Your task to perform on an android device: Add bose soundsport free to the cart on costco.com, then select checkout. Image 0: 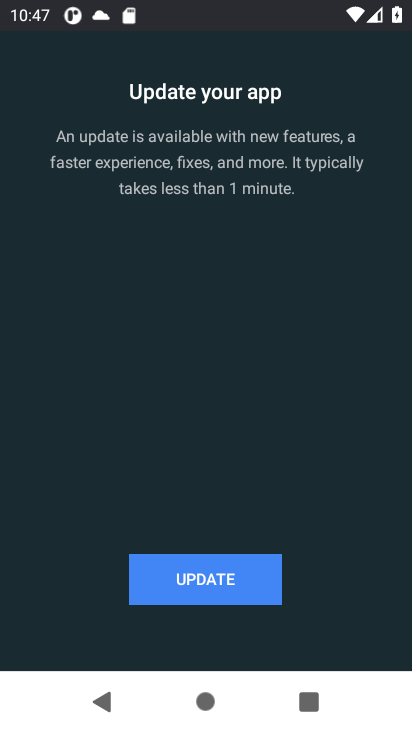
Step 0: press home button
Your task to perform on an android device: Add bose soundsport free to the cart on costco.com, then select checkout. Image 1: 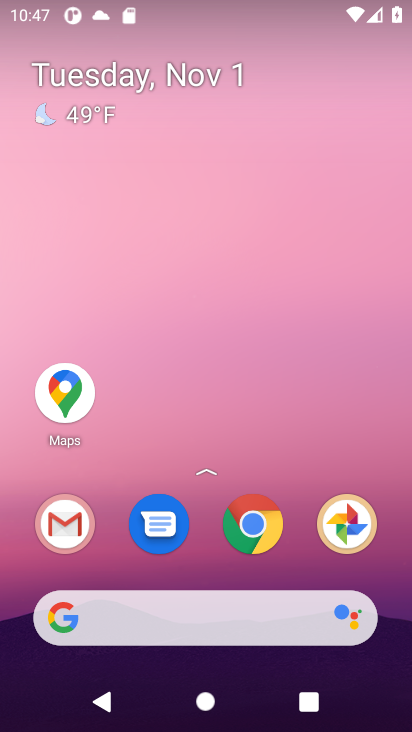
Step 1: click (84, 619)
Your task to perform on an android device: Add bose soundsport free to the cart on costco.com, then select checkout. Image 2: 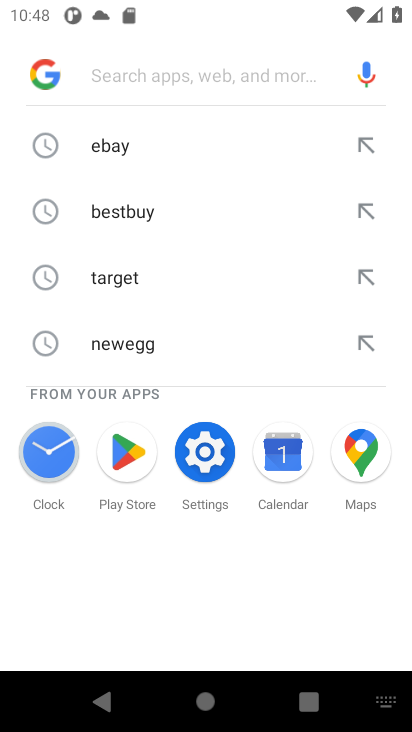
Step 2: type "costco.com"
Your task to perform on an android device: Add bose soundsport free to the cart on costco.com, then select checkout. Image 3: 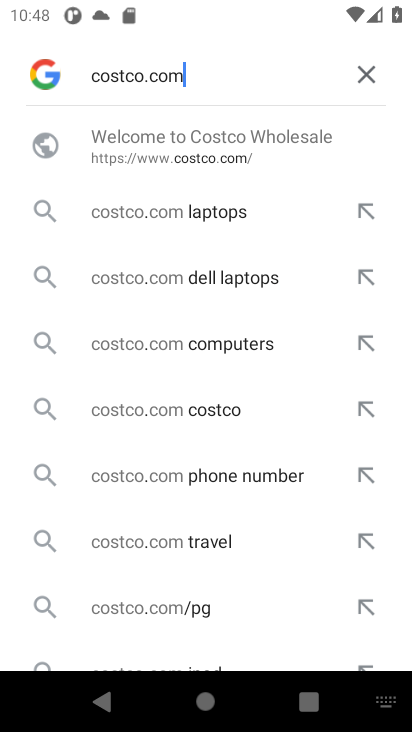
Step 3: press enter
Your task to perform on an android device: Add bose soundsport free to the cart on costco.com, then select checkout. Image 4: 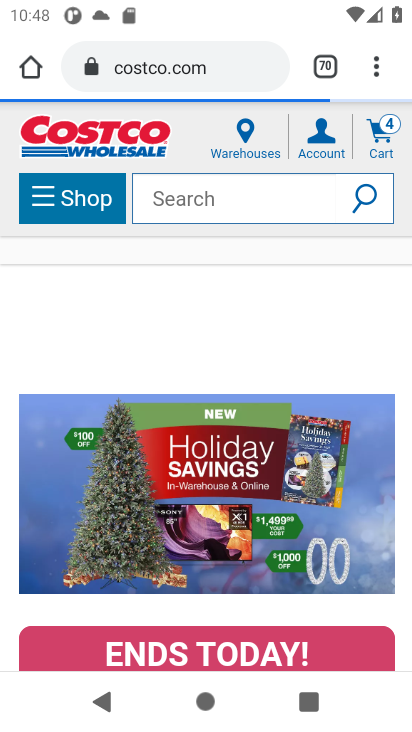
Step 4: click (183, 197)
Your task to perform on an android device: Add bose soundsport free to the cart on costco.com, then select checkout. Image 5: 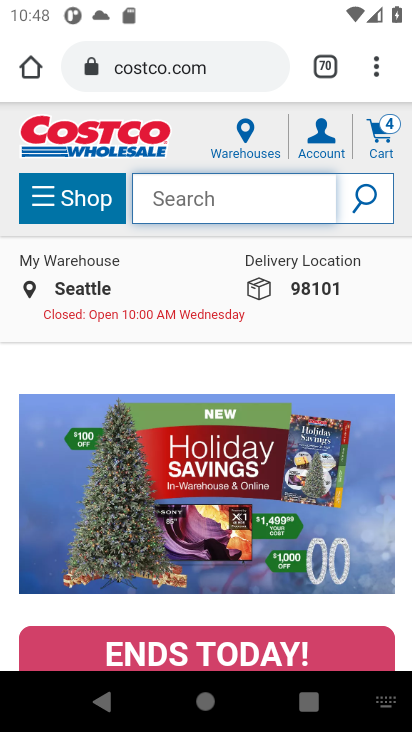
Step 5: type " bose soundsport free"
Your task to perform on an android device: Add bose soundsport free to the cart on costco.com, then select checkout. Image 6: 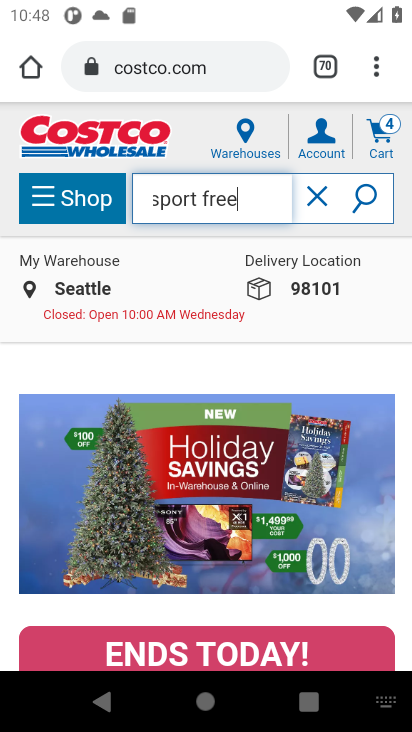
Step 6: press enter
Your task to perform on an android device: Add bose soundsport free to the cart on costco.com, then select checkout. Image 7: 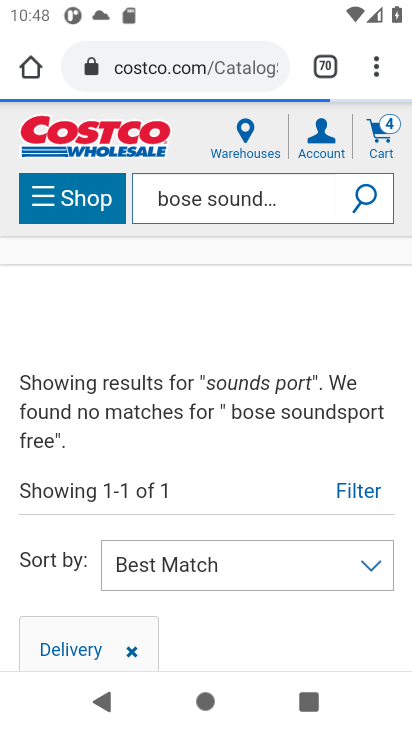
Step 7: task complete